Your task to perform on an android device: check storage Image 0: 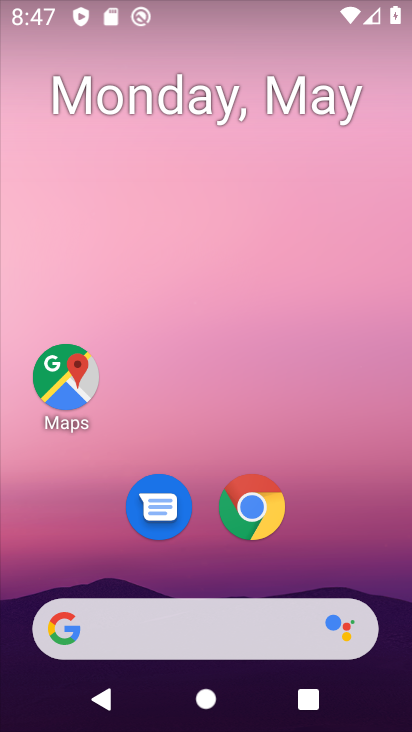
Step 0: drag from (188, 571) to (122, 20)
Your task to perform on an android device: check storage Image 1: 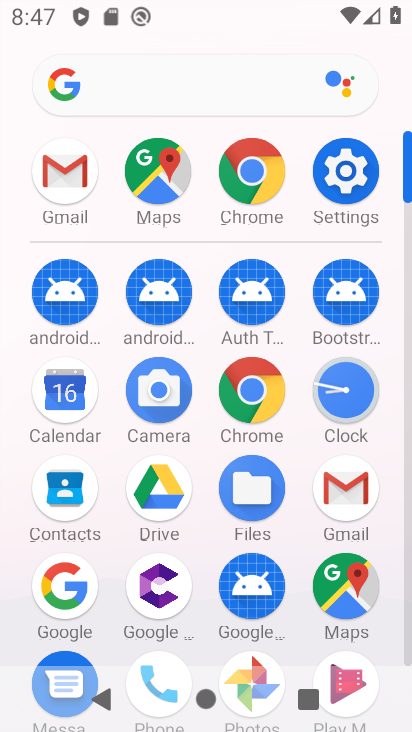
Step 1: click (353, 186)
Your task to perform on an android device: check storage Image 2: 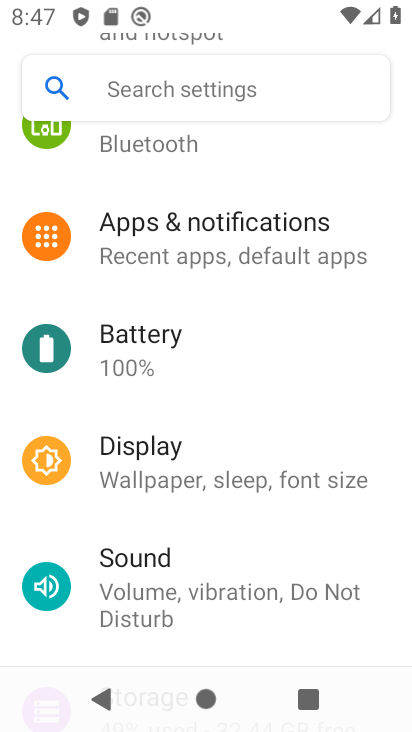
Step 2: drag from (174, 303) to (182, 559)
Your task to perform on an android device: check storage Image 3: 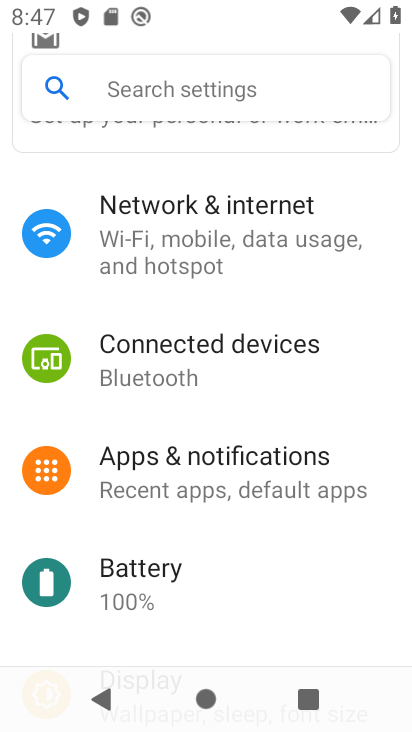
Step 3: drag from (182, 561) to (202, 303)
Your task to perform on an android device: check storage Image 4: 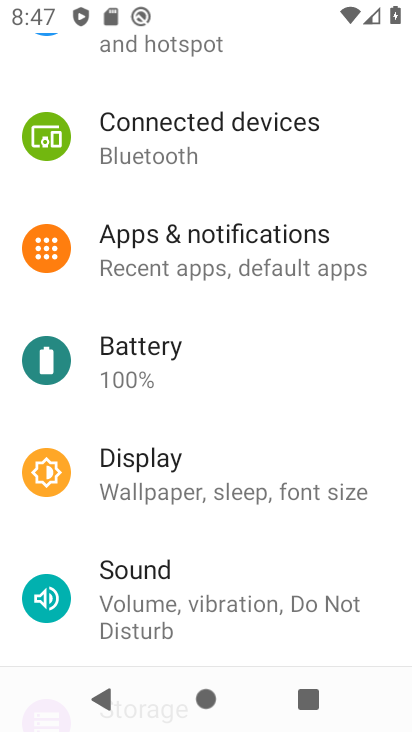
Step 4: drag from (143, 596) to (202, 205)
Your task to perform on an android device: check storage Image 5: 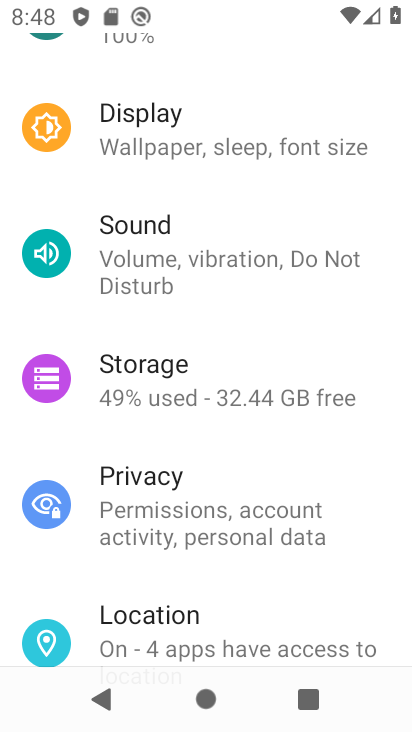
Step 5: click (168, 402)
Your task to perform on an android device: check storage Image 6: 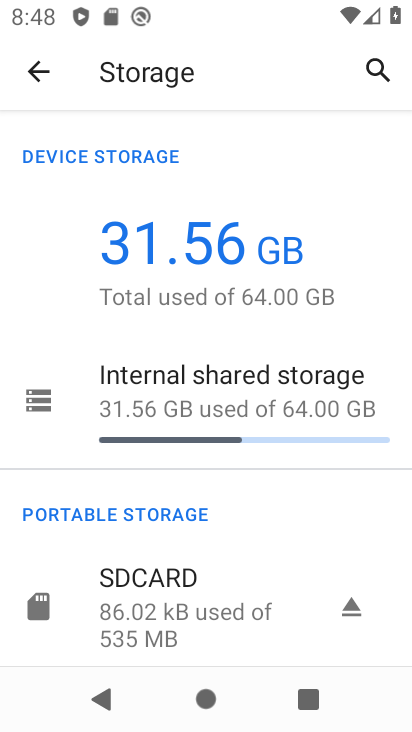
Step 6: click (271, 404)
Your task to perform on an android device: check storage Image 7: 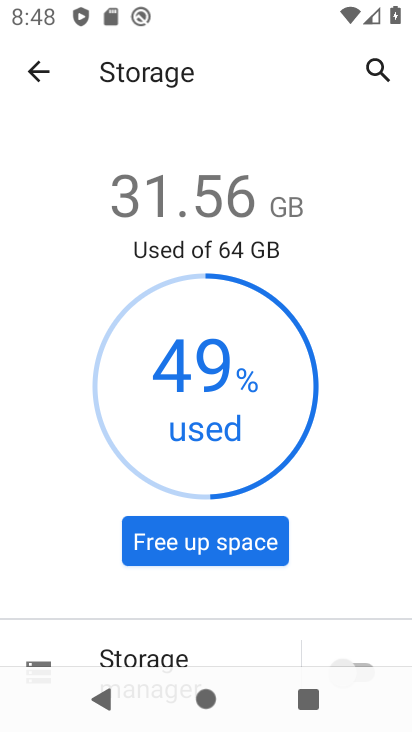
Step 7: task complete